Your task to perform on an android device: open chrome and create a bookmark for the current page Image 0: 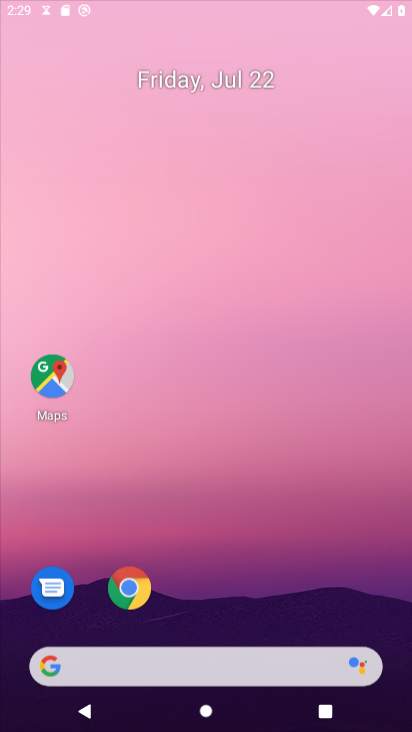
Step 0: click (302, 103)
Your task to perform on an android device: open chrome and create a bookmark for the current page Image 1: 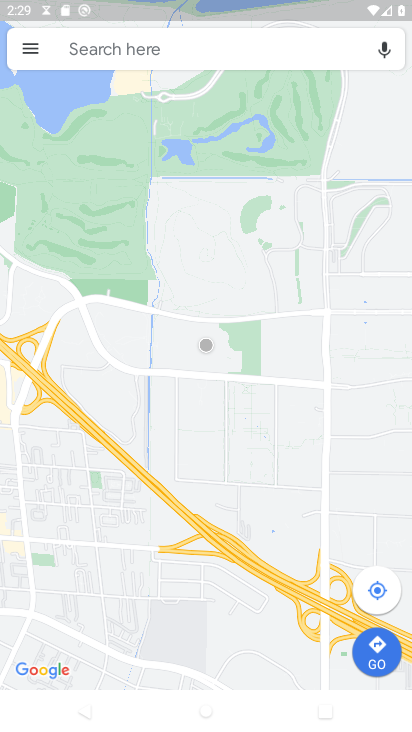
Step 1: press back button
Your task to perform on an android device: open chrome and create a bookmark for the current page Image 2: 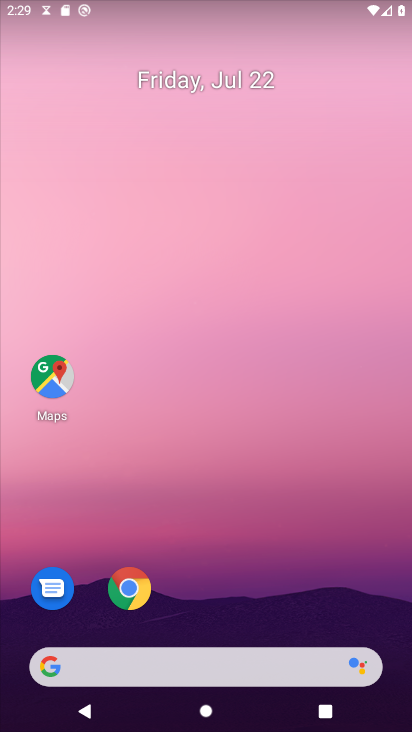
Step 2: click (197, 33)
Your task to perform on an android device: open chrome and create a bookmark for the current page Image 3: 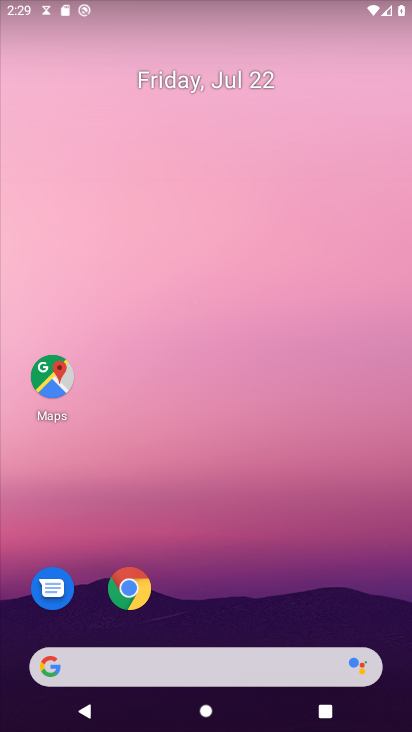
Step 3: drag from (236, 416) to (214, 72)
Your task to perform on an android device: open chrome and create a bookmark for the current page Image 4: 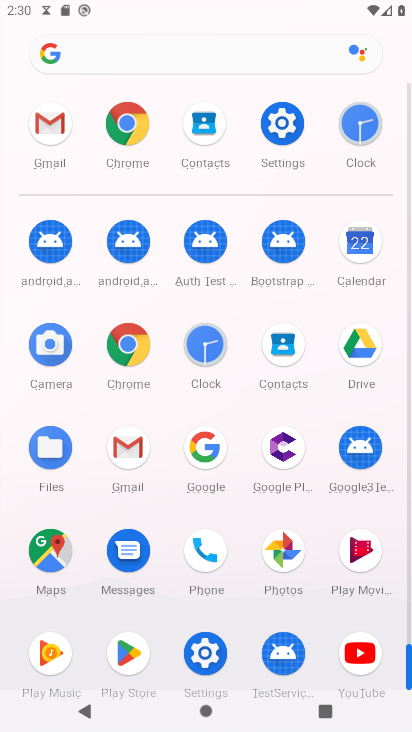
Step 4: click (132, 95)
Your task to perform on an android device: open chrome and create a bookmark for the current page Image 5: 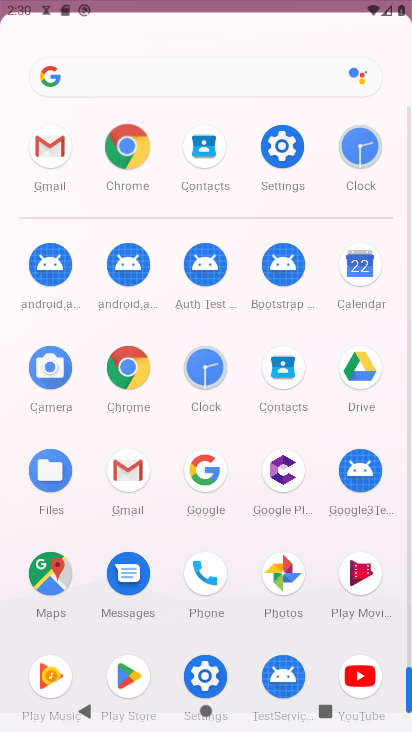
Step 5: click (128, 136)
Your task to perform on an android device: open chrome and create a bookmark for the current page Image 6: 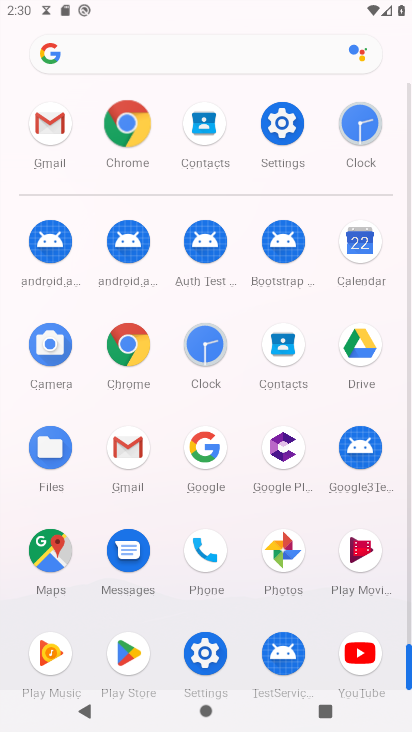
Step 6: click (127, 135)
Your task to perform on an android device: open chrome and create a bookmark for the current page Image 7: 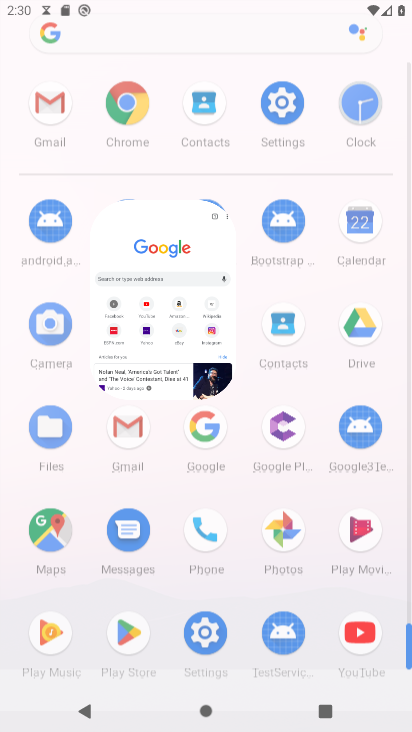
Step 7: click (127, 135)
Your task to perform on an android device: open chrome and create a bookmark for the current page Image 8: 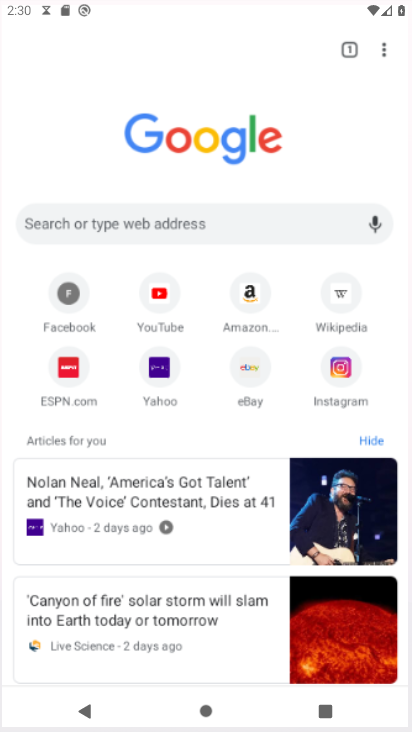
Step 8: click (127, 135)
Your task to perform on an android device: open chrome and create a bookmark for the current page Image 9: 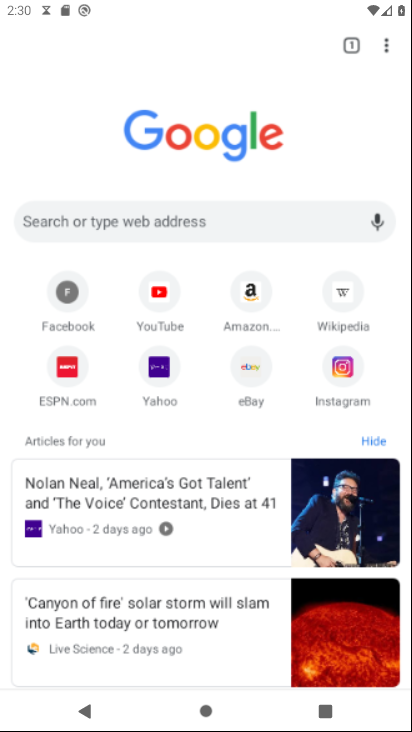
Step 9: click (136, 132)
Your task to perform on an android device: open chrome and create a bookmark for the current page Image 10: 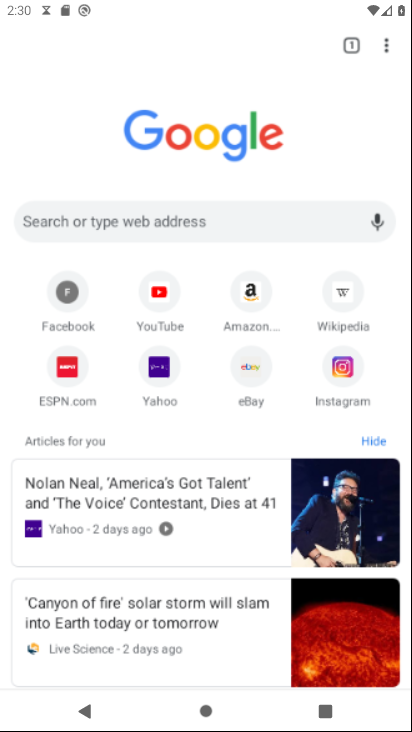
Step 10: click (144, 141)
Your task to perform on an android device: open chrome and create a bookmark for the current page Image 11: 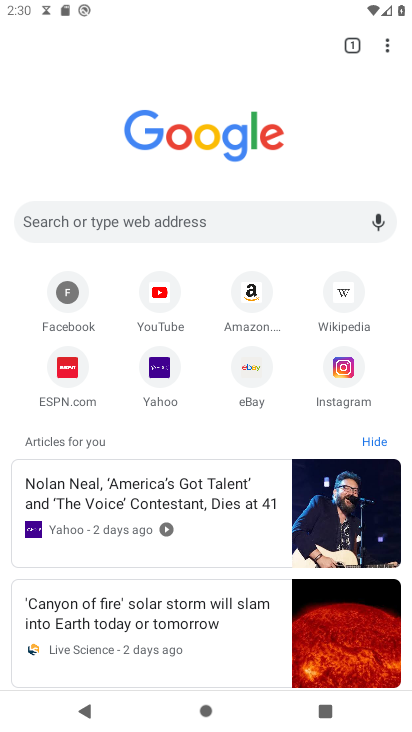
Step 11: click (144, 141)
Your task to perform on an android device: open chrome and create a bookmark for the current page Image 12: 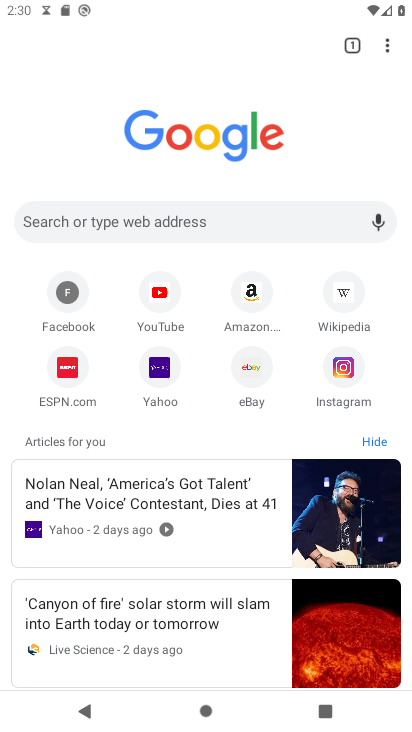
Step 12: click (144, 141)
Your task to perform on an android device: open chrome and create a bookmark for the current page Image 13: 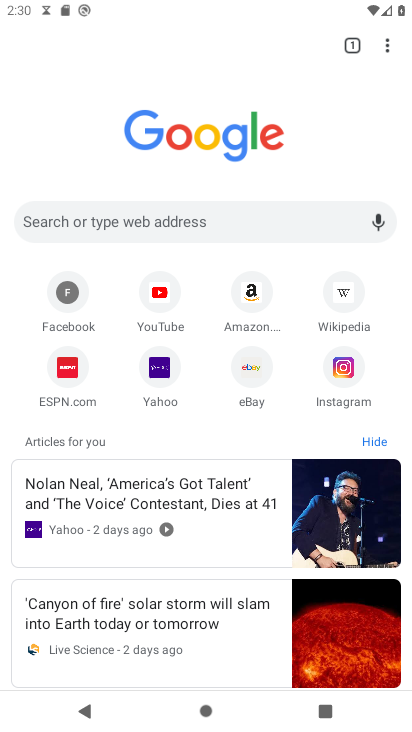
Step 13: drag from (376, 44) to (256, 53)
Your task to perform on an android device: open chrome and create a bookmark for the current page Image 14: 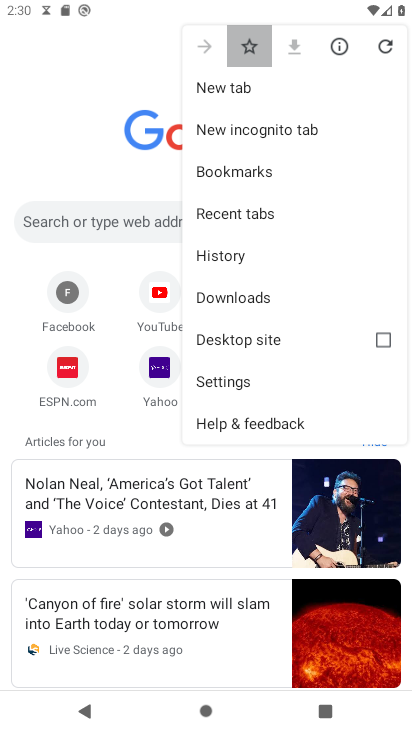
Step 14: click (248, 41)
Your task to perform on an android device: open chrome and create a bookmark for the current page Image 15: 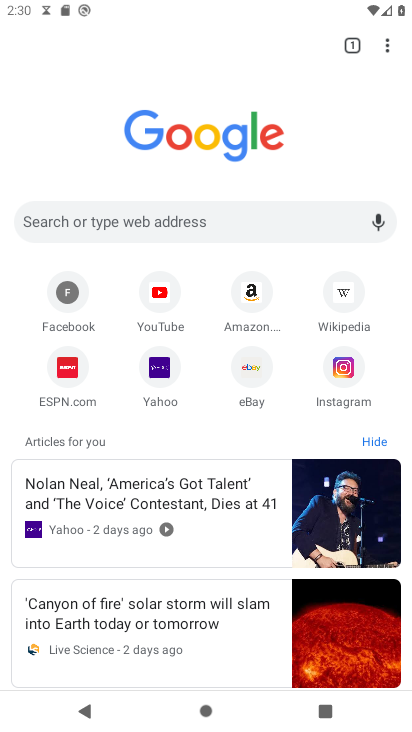
Step 15: task complete